Your task to perform on an android device: Go to location settings Image 0: 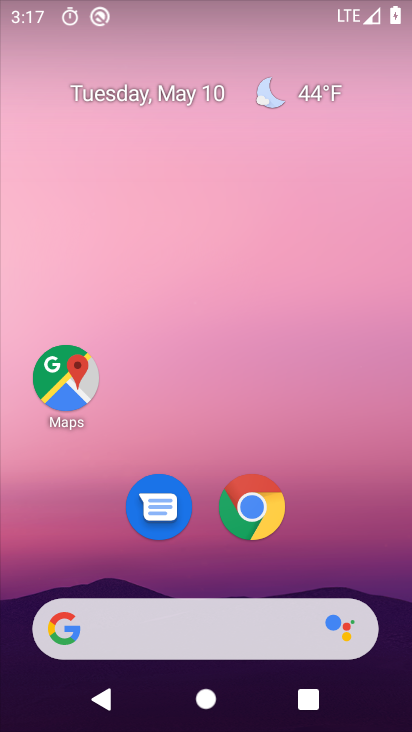
Step 0: drag from (220, 596) to (288, 211)
Your task to perform on an android device: Go to location settings Image 1: 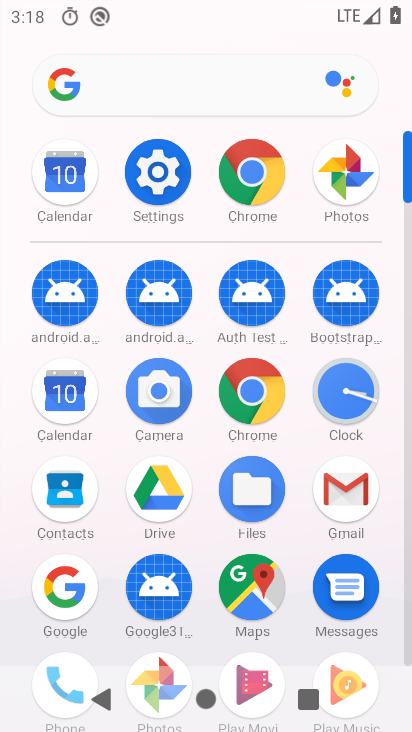
Step 1: click (122, 182)
Your task to perform on an android device: Go to location settings Image 2: 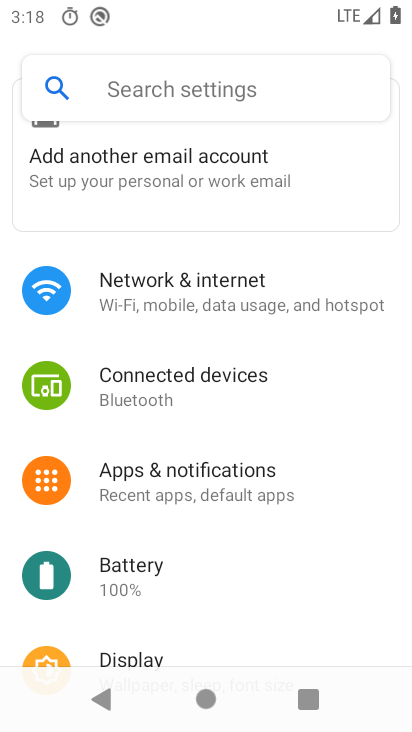
Step 2: drag from (256, 627) to (230, 282)
Your task to perform on an android device: Go to location settings Image 3: 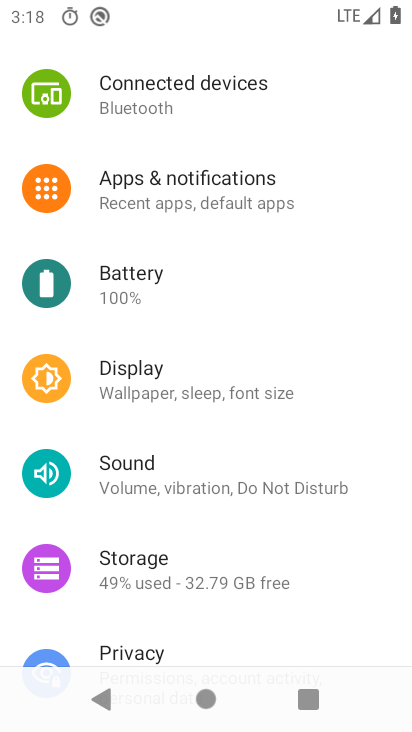
Step 3: drag from (171, 628) to (186, 253)
Your task to perform on an android device: Go to location settings Image 4: 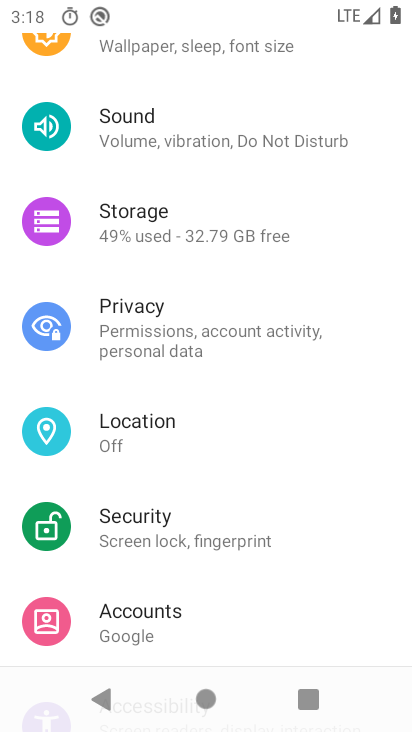
Step 4: click (176, 439)
Your task to perform on an android device: Go to location settings Image 5: 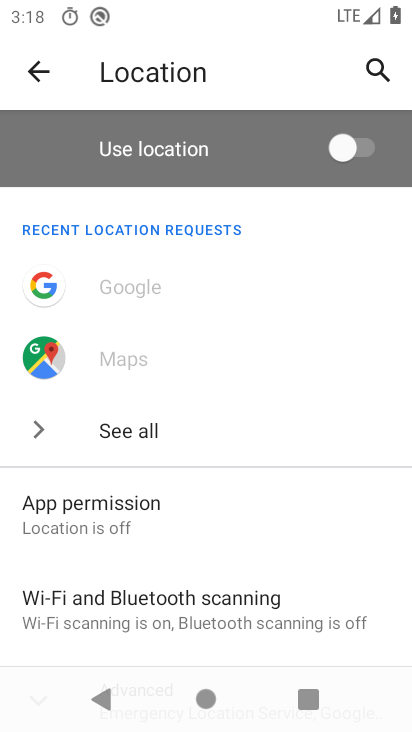
Step 5: drag from (201, 615) to (211, 275)
Your task to perform on an android device: Go to location settings Image 6: 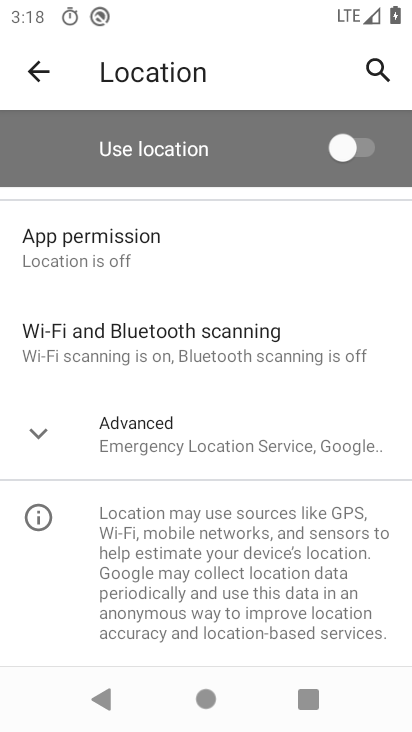
Step 6: click (150, 446)
Your task to perform on an android device: Go to location settings Image 7: 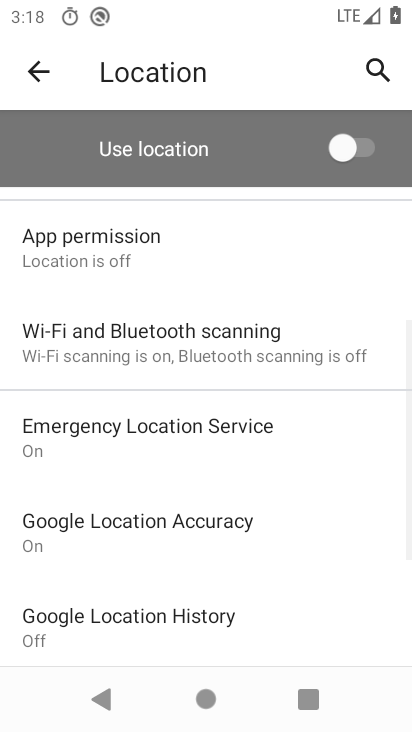
Step 7: task complete